Your task to perform on an android device: Add logitech g933 to the cart on ebay, then select checkout. Image 0: 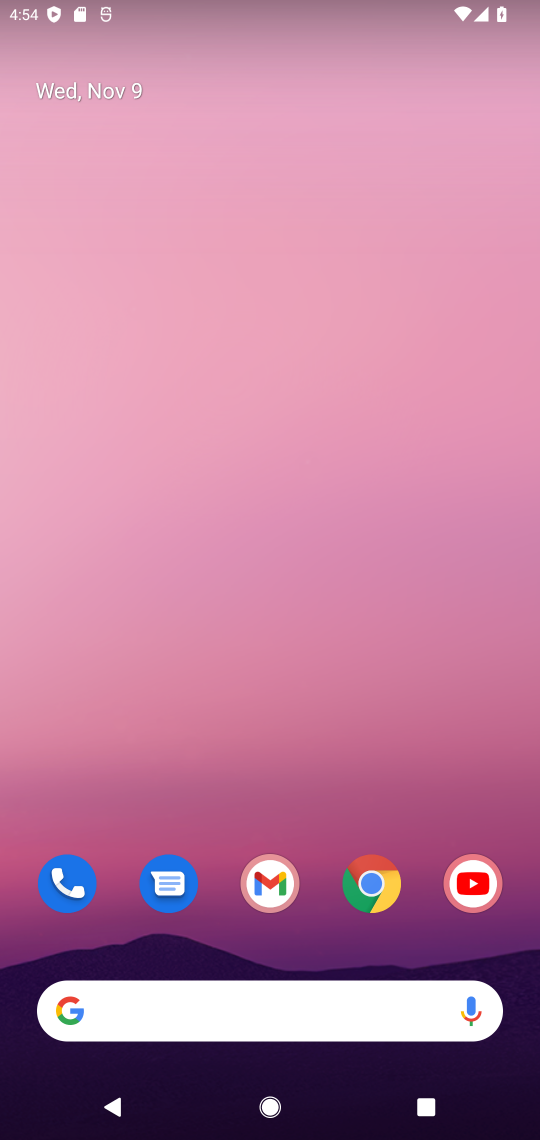
Step 0: click (372, 894)
Your task to perform on an android device: Add logitech g933 to the cart on ebay, then select checkout. Image 1: 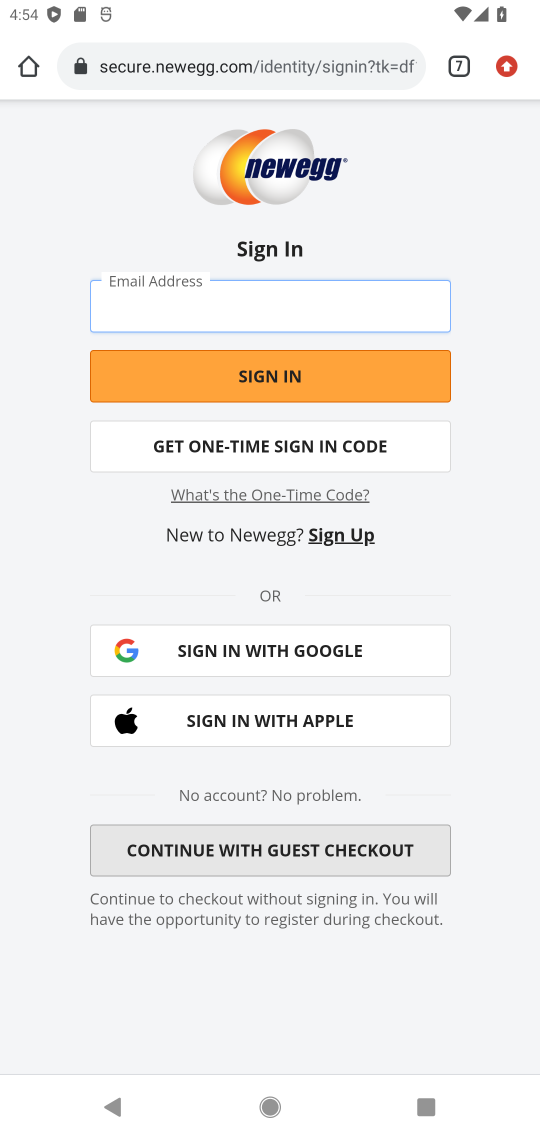
Step 1: click (460, 66)
Your task to perform on an android device: Add logitech g933 to the cart on ebay, then select checkout. Image 2: 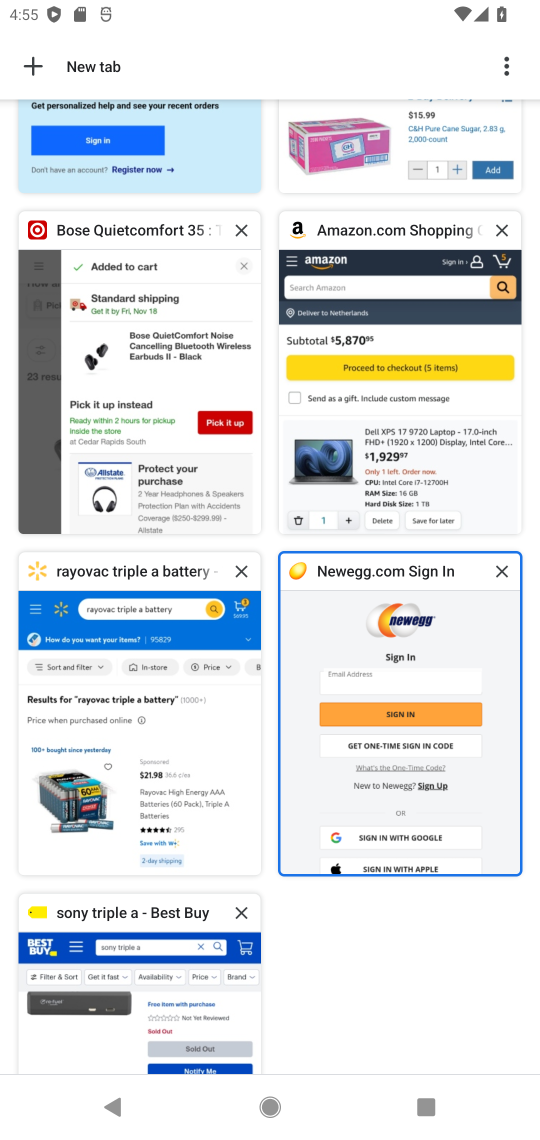
Step 2: drag from (183, 217) to (194, 824)
Your task to perform on an android device: Add logitech g933 to the cart on ebay, then select checkout. Image 3: 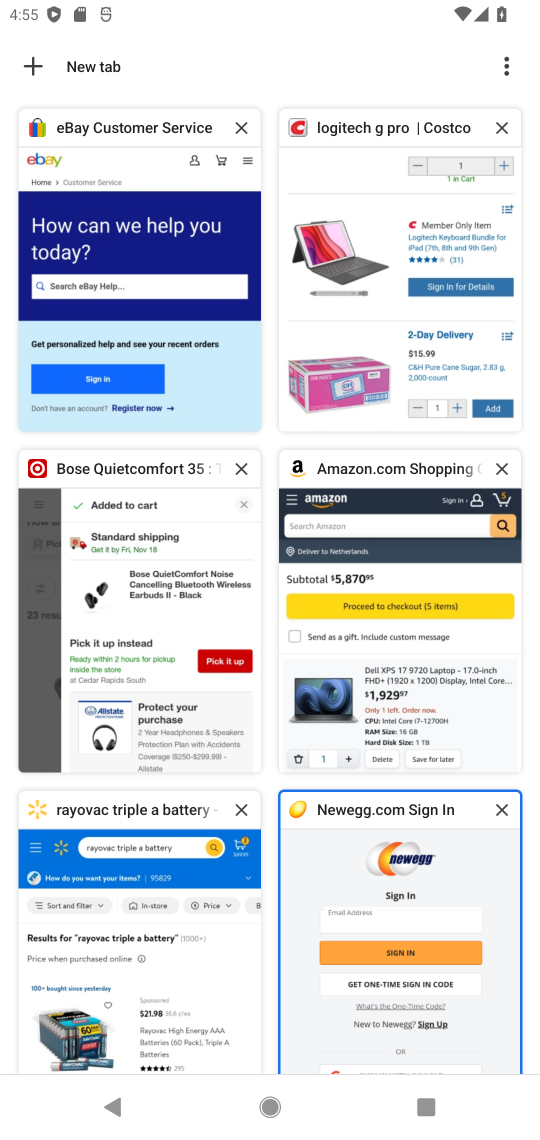
Step 3: click (93, 304)
Your task to perform on an android device: Add logitech g933 to the cart on ebay, then select checkout. Image 4: 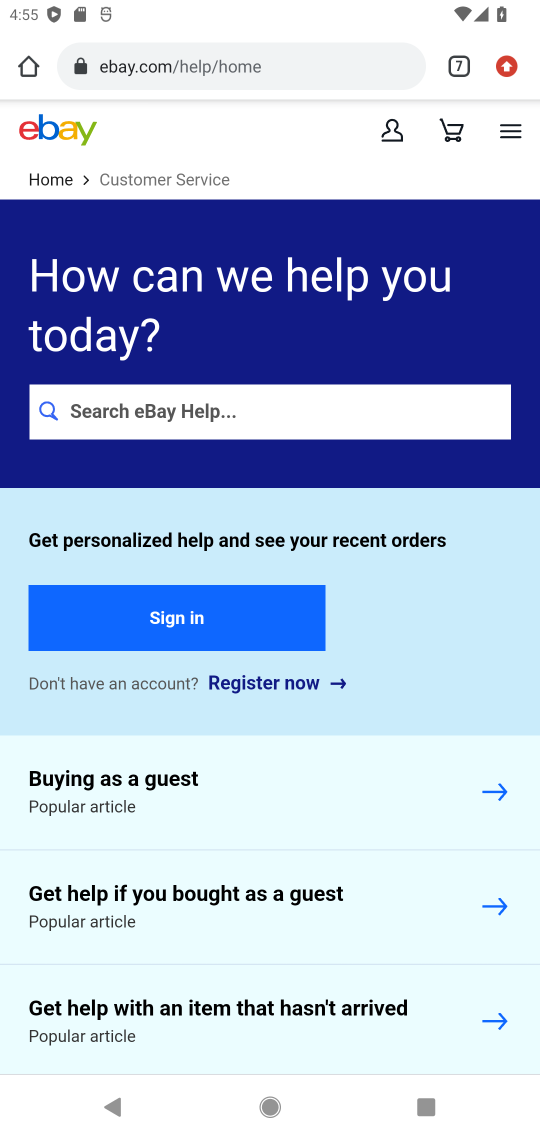
Step 4: press back button
Your task to perform on an android device: Add logitech g933 to the cart on ebay, then select checkout. Image 5: 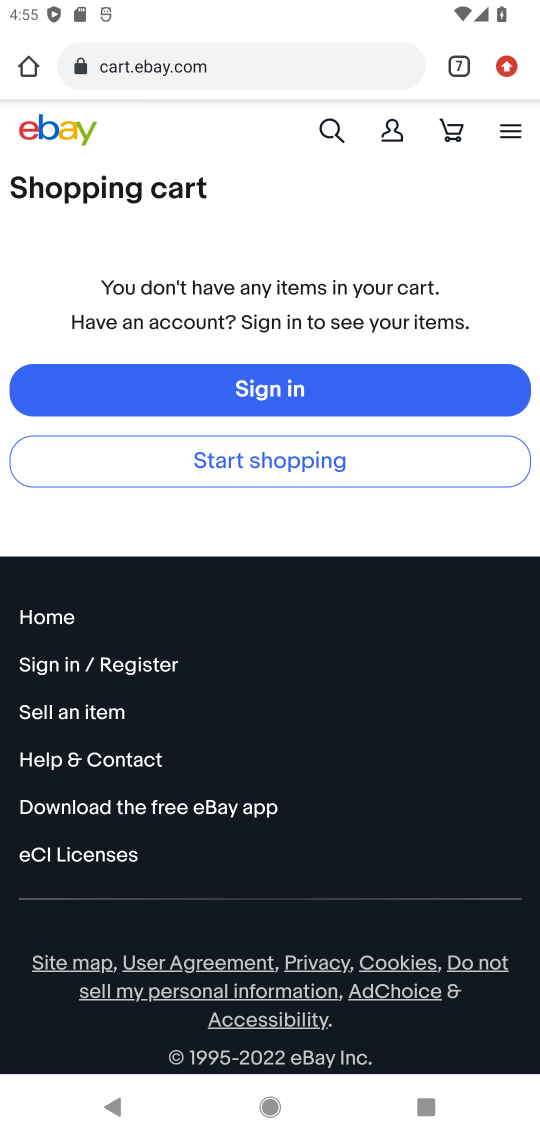
Step 5: click (335, 134)
Your task to perform on an android device: Add logitech g933 to the cart on ebay, then select checkout. Image 6: 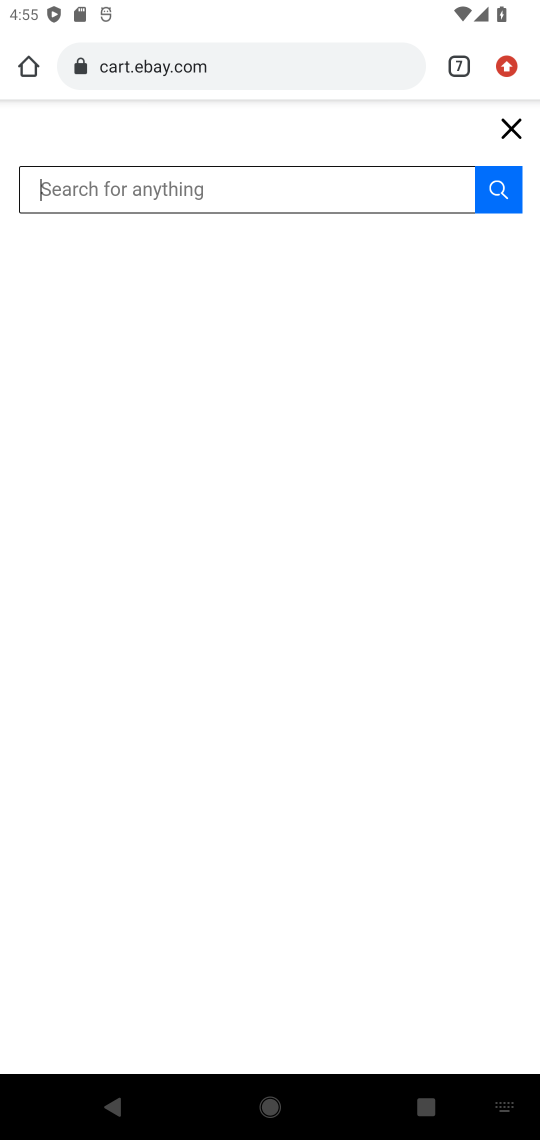
Step 6: type "logitech g933"
Your task to perform on an android device: Add logitech g933 to the cart on ebay, then select checkout. Image 7: 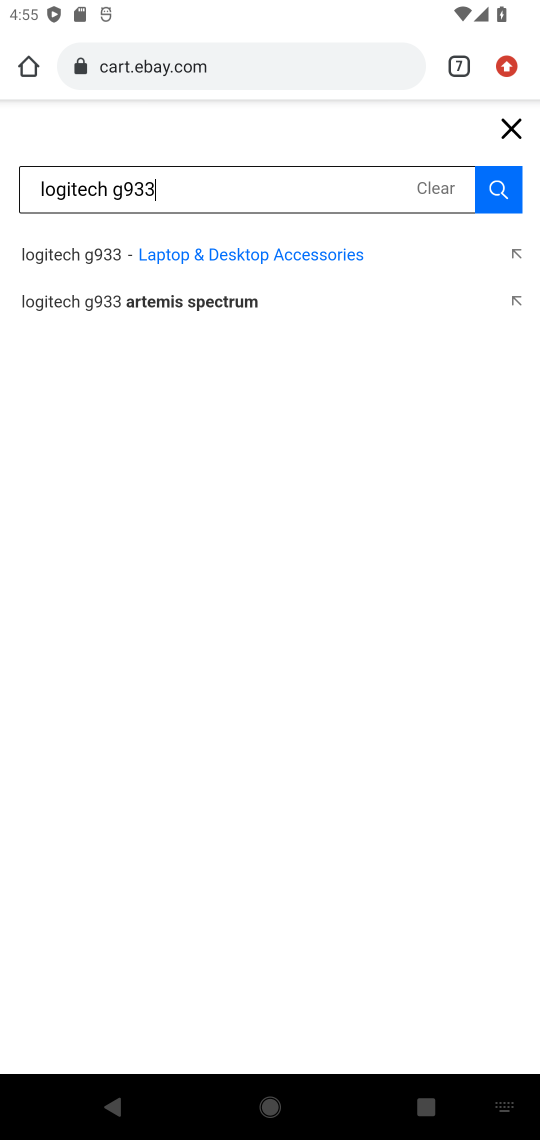
Step 7: click (88, 257)
Your task to perform on an android device: Add logitech g933 to the cart on ebay, then select checkout. Image 8: 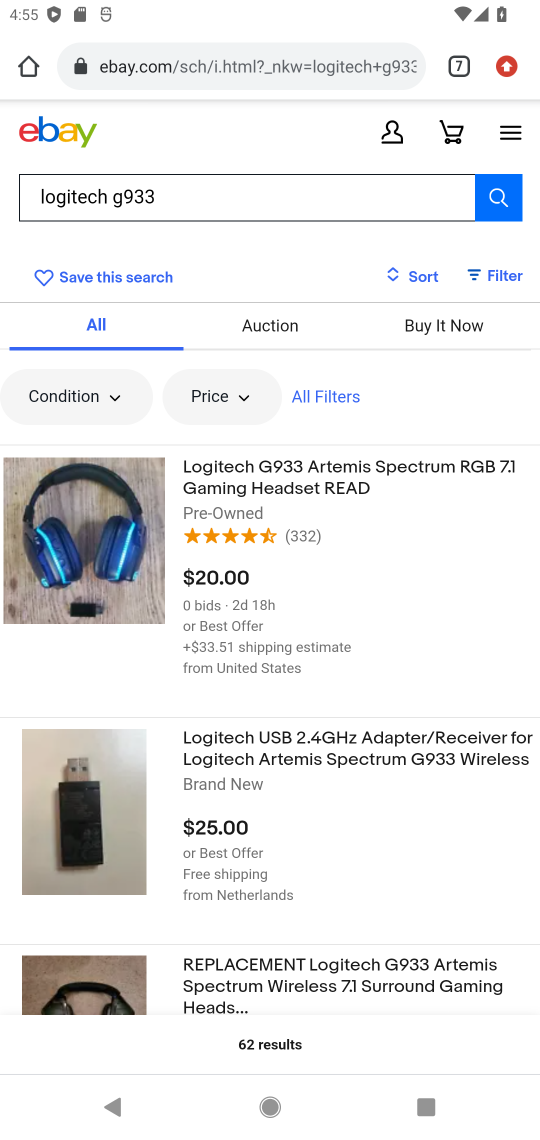
Step 8: click (262, 493)
Your task to perform on an android device: Add logitech g933 to the cart on ebay, then select checkout. Image 9: 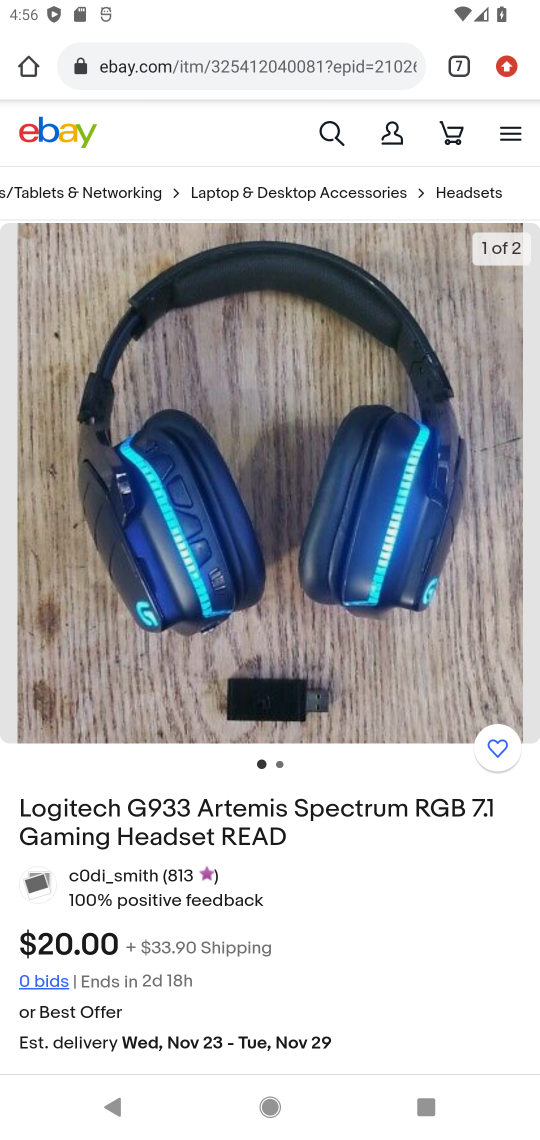
Step 9: drag from (191, 954) to (289, 337)
Your task to perform on an android device: Add logitech g933 to the cart on ebay, then select checkout. Image 10: 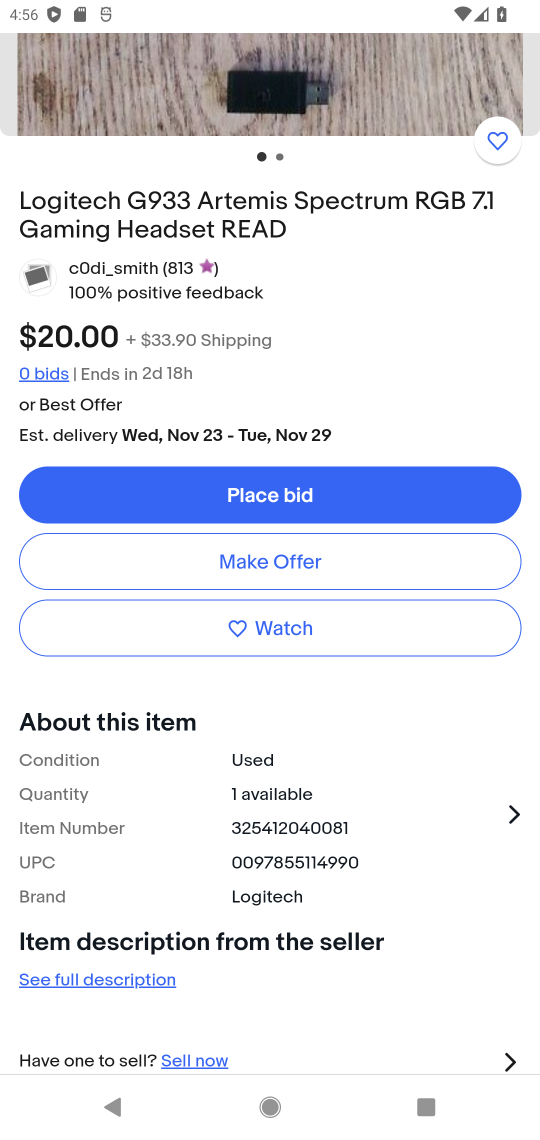
Step 10: drag from (331, 801) to (347, 270)
Your task to perform on an android device: Add logitech g933 to the cart on ebay, then select checkout. Image 11: 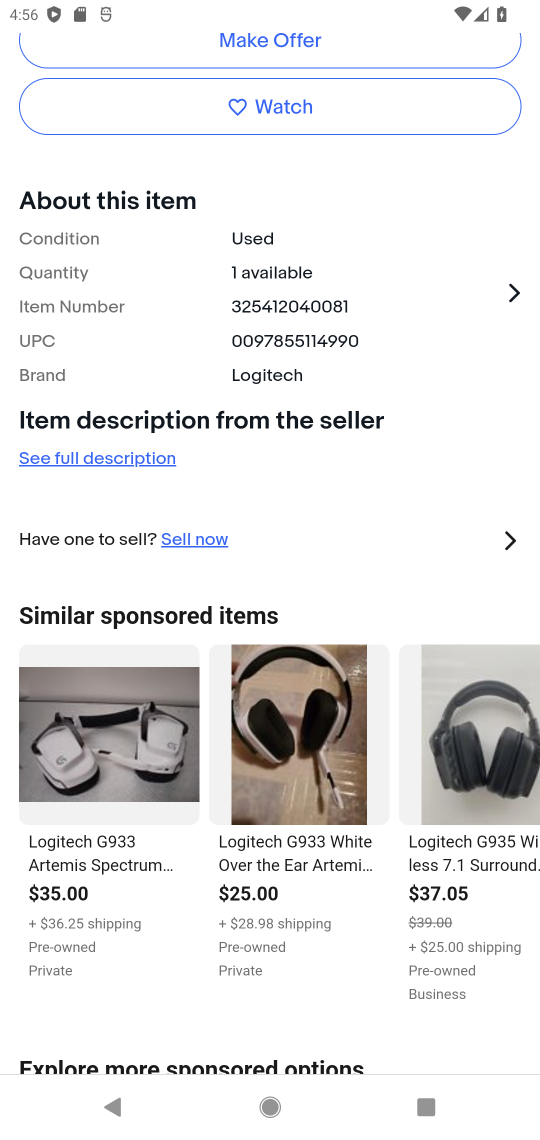
Step 11: click (114, 855)
Your task to perform on an android device: Add logitech g933 to the cart on ebay, then select checkout. Image 12: 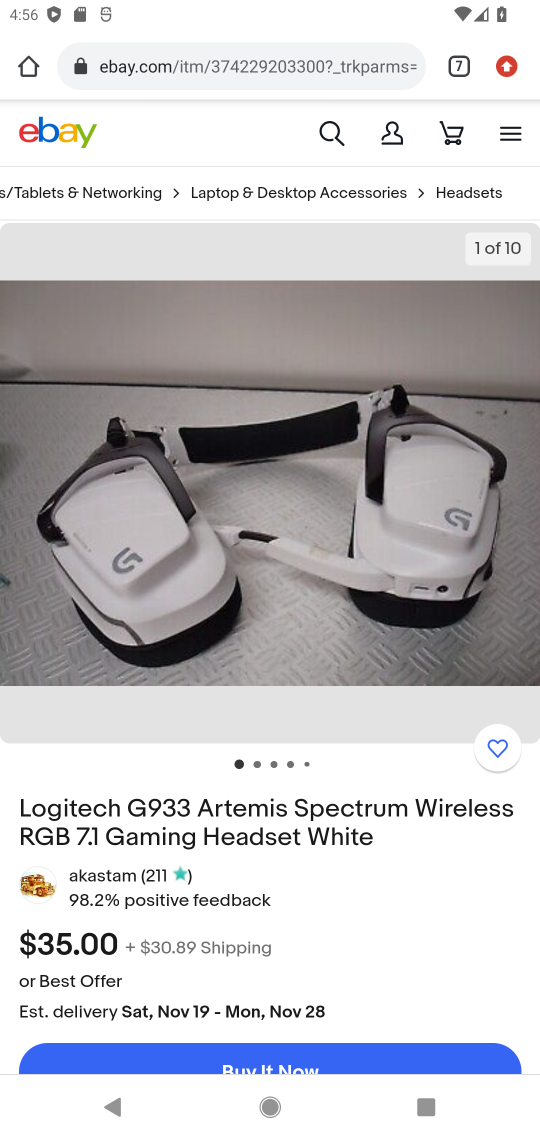
Step 12: drag from (205, 916) to (274, 256)
Your task to perform on an android device: Add logitech g933 to the cart on ebay, then select checkout. Image 13: 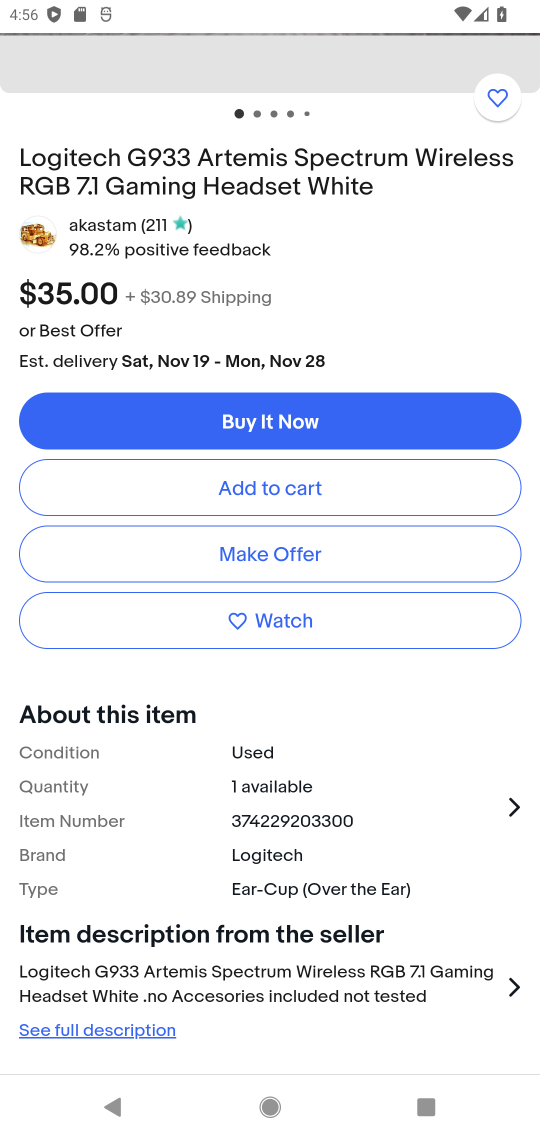
Step 13: click (274, 478)
Your task to perform on an android device: Add logitech g933 to the cart on ebay, then select checkout. Image 14: 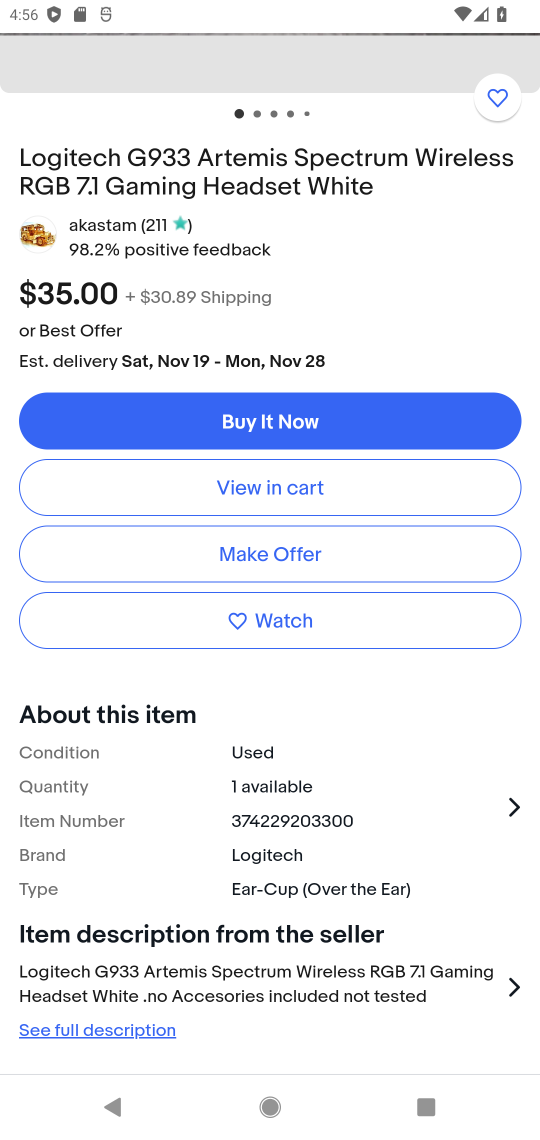
Step 14: click (250, 478)
Your task to perform on an android device: Add logitech g933 to the cart on ebay, then select checkout. Image 15: 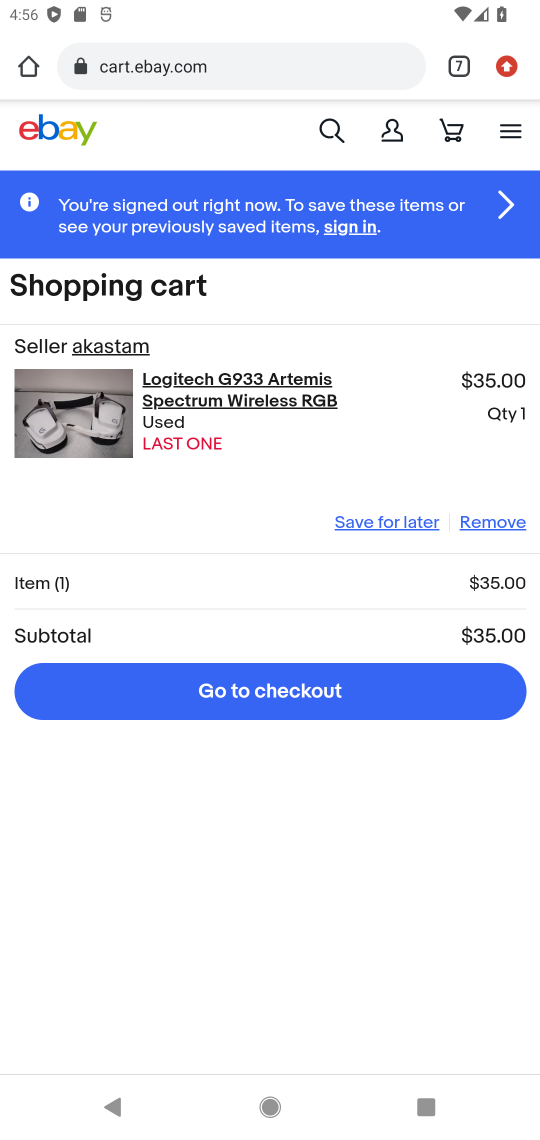
Step 15: click (302, 685)
Your task to perform on an android device: Add logitech g933 to the cart on ebay, then select checkout. Image 16: 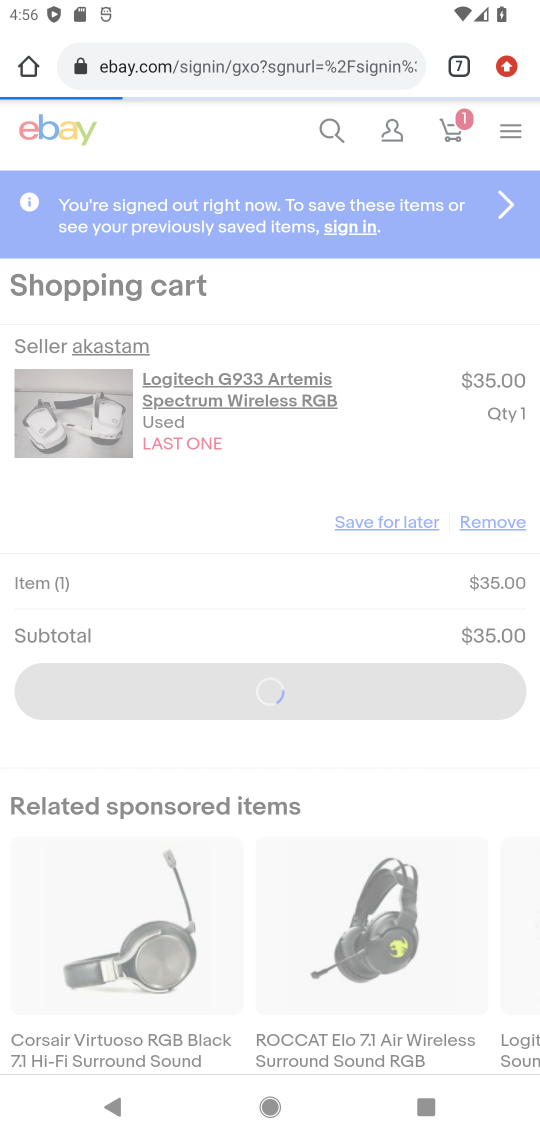
Step 16: task complete